Your task to perform on an android device: Go to notification settings Image 0: 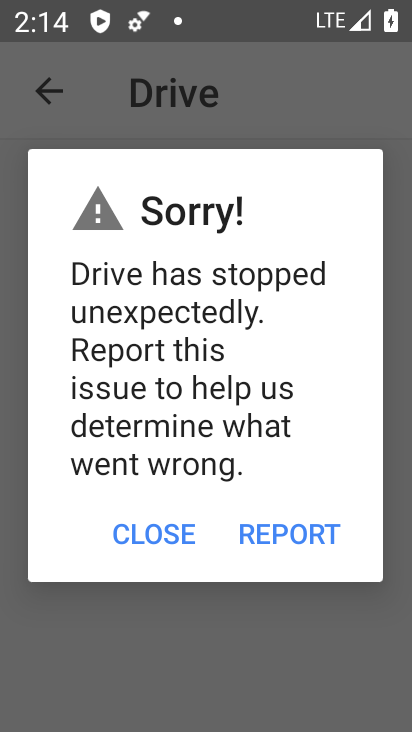
Step 0: drag from (203, 591) to (203, 555)
Your task to perform on an android device: Go to notification settings Image 1: 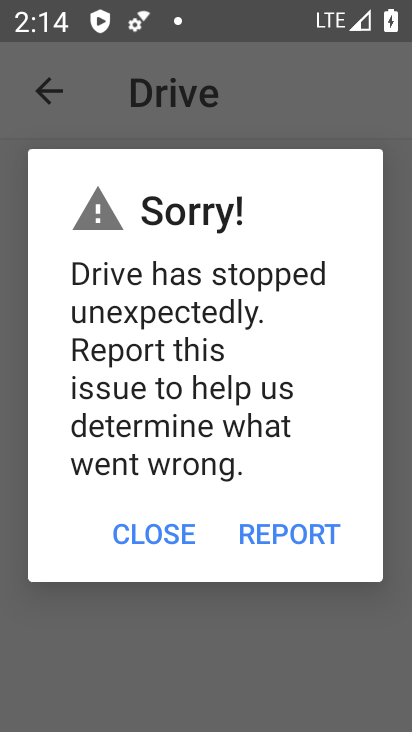
Step 1: press home button
Your task to perform on an android device: Go to notification settings Image 2: 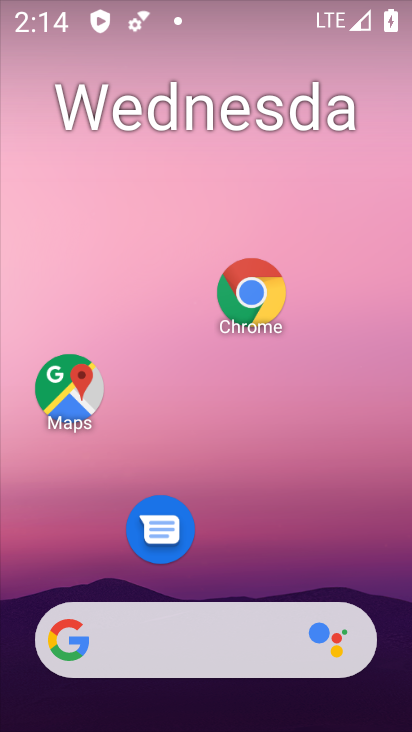
Step 2: drag from (226, 532) to (271, 235)
Your task to perform on an android device: Go to notification settings Image 3: 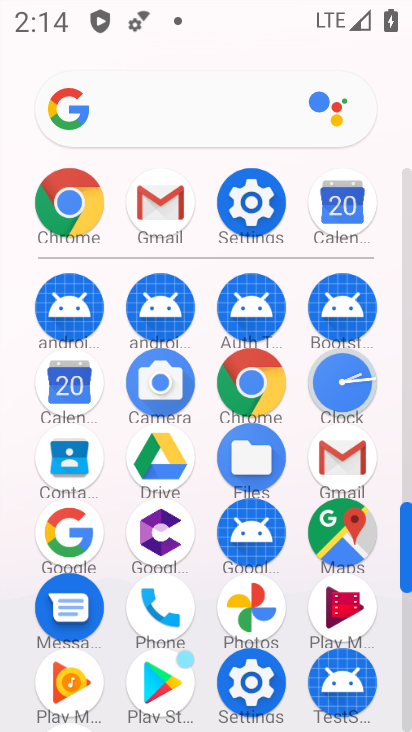
Step 3: click (239, 212)
Your task to perform on an android device: Go to notification settings Image 4: 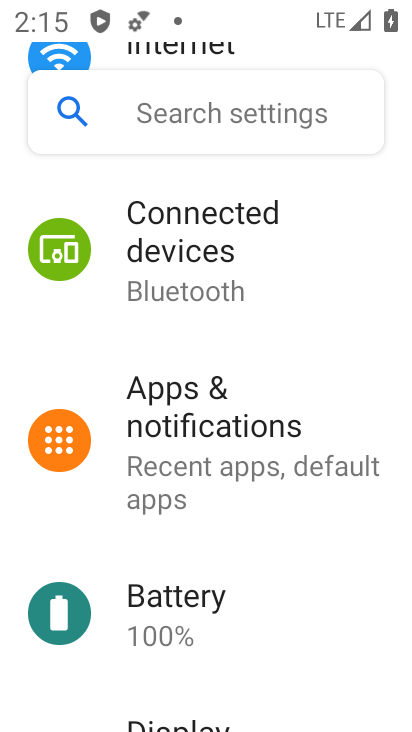
Step 4: click (178, 485)
Your task to perform on an android device: Go to notification settings Image 5: 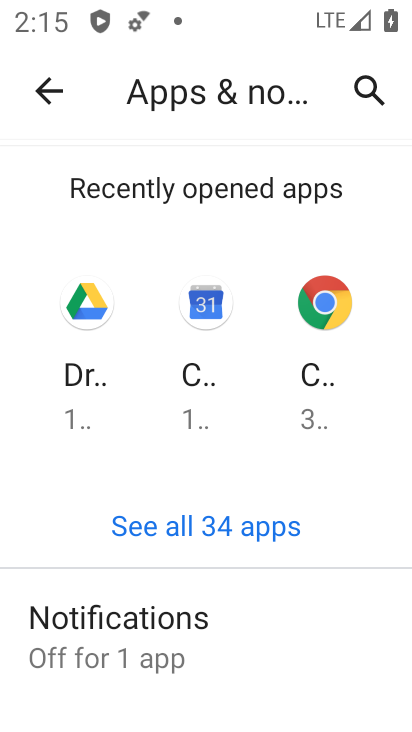
Step 5: task complete